Your task to perform on an android device: toggle wifi Image 0: 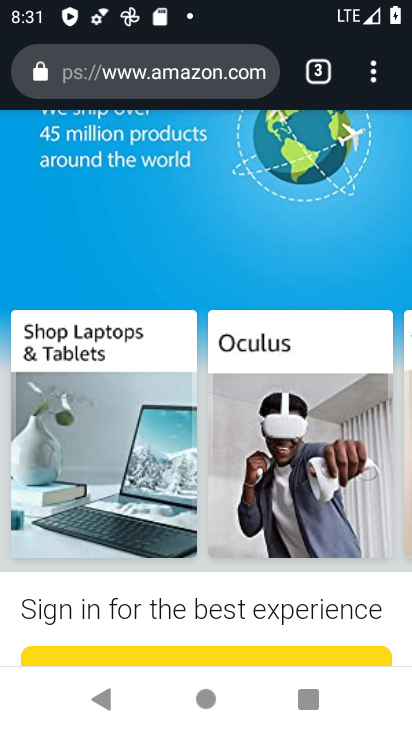
Step 0: press home button
Your task to perform on an android device: toggle wifi Image 1: 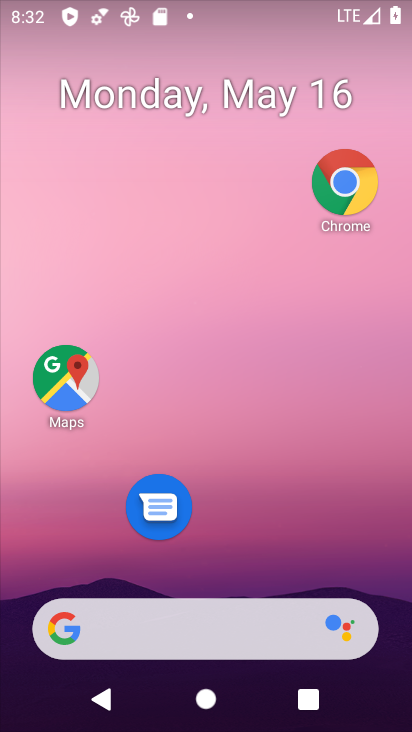
Step 1: drag from (266, 1) to (284, 445)
Your task to perform on an android device: toggle wifi Image 2: 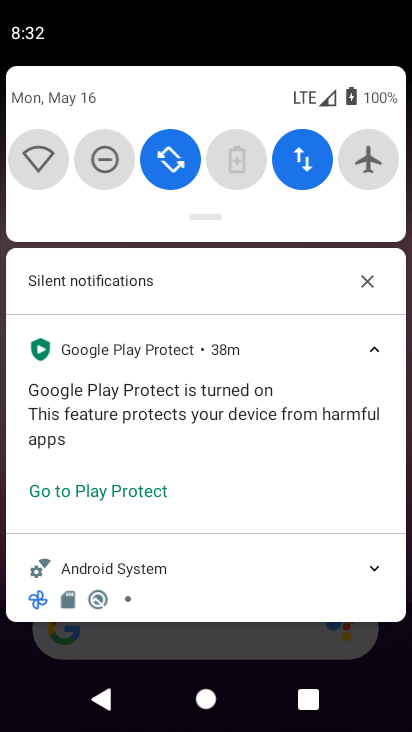
Step 2: click (42, 159)
Your task to perform on an android device: toggle wifi Image 3: 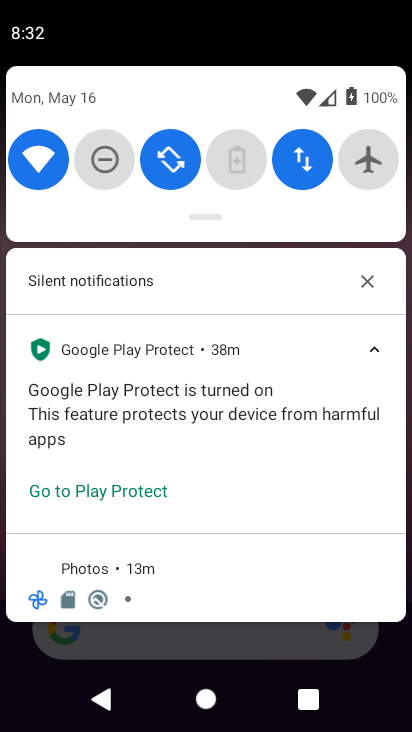
Step 3: task complete